Your task to perform on an android device: create a new album in the google photos Image 0: 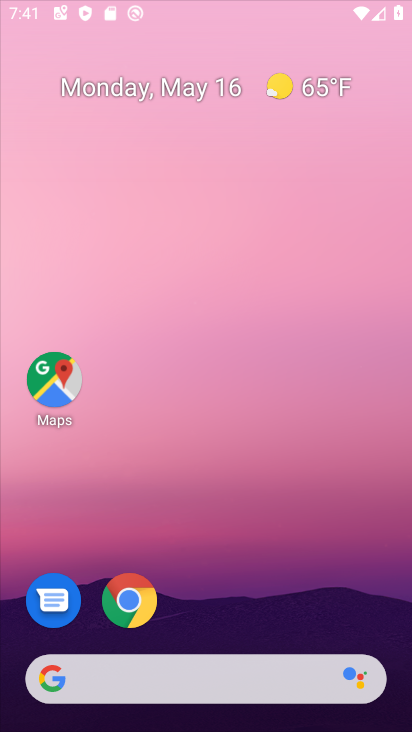
Step 0: click (203, 0)
Your task to perform on an android device: create a new album in the google photos Image 1: 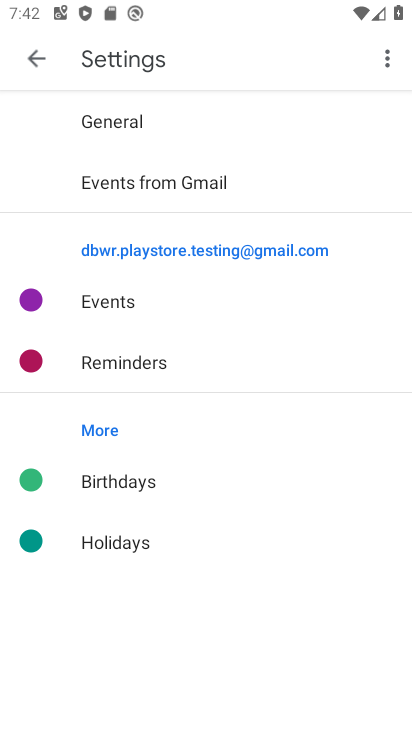
Step 1: drag from (223, 546) to (359, 143)
Your task to perform on an android device: create a new album in the google photos Image 2: 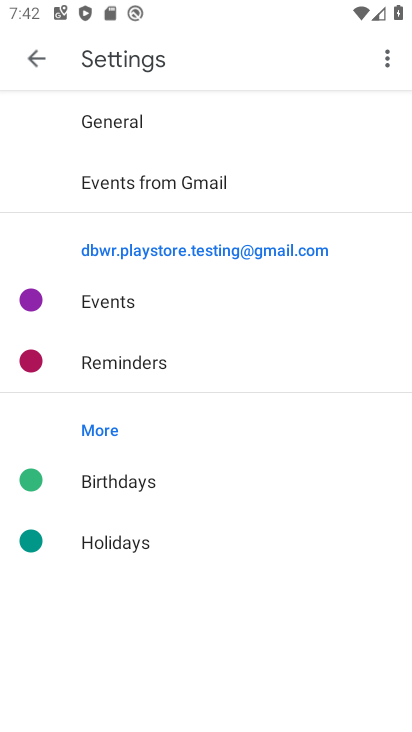
Step 2: press home button
Your task to perform on an android device: create a new album in the google photos Image 3: 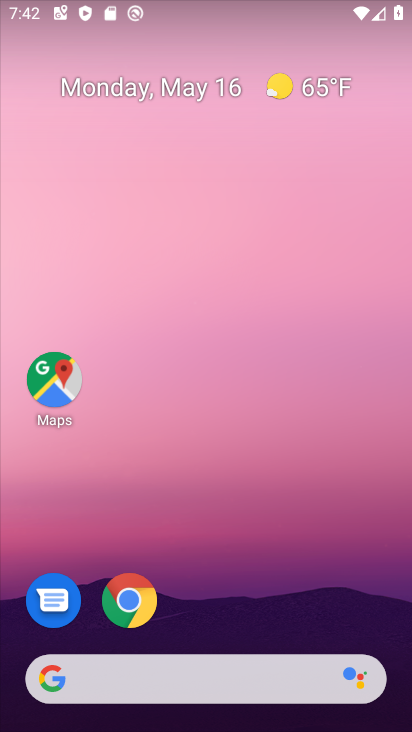
Step 3: drag from (182, 637) to (247, 56)
Your task to perform on an android device: create a new album in the google photos Image 4: 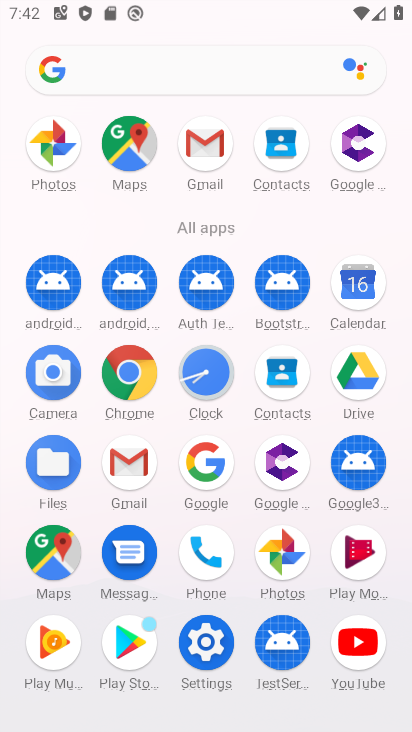
Step 4: click (274, 550)
Your task to perform on an android device: create a new album in the google photos Image 5: 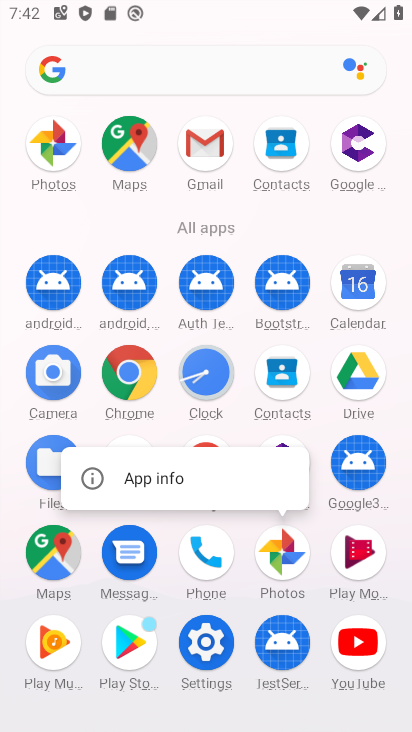
Step 5: click (184, 485)
Your task to perform on an android device: create a new album in the google photos Image 6: 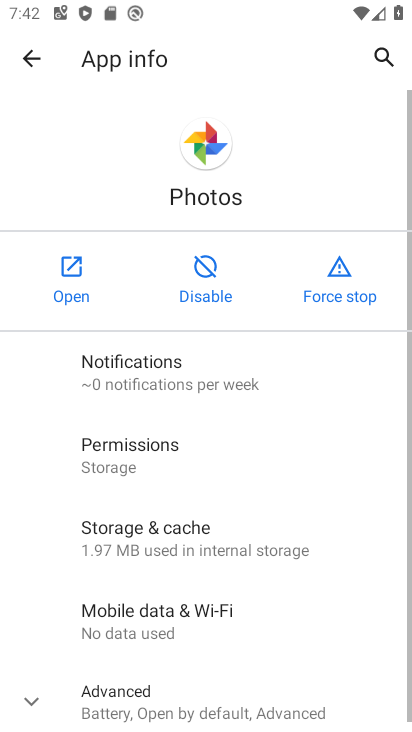
Step 6: click (53, 273)
Your task to perform on an android device: create a new album in the google photos Image 7: 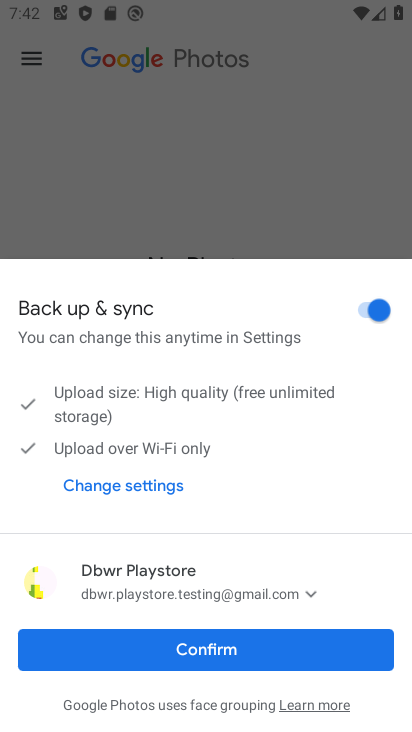
Step 7: click (211, 652)
Your task to perform on an android device: create a new album in the google photos Image 8: 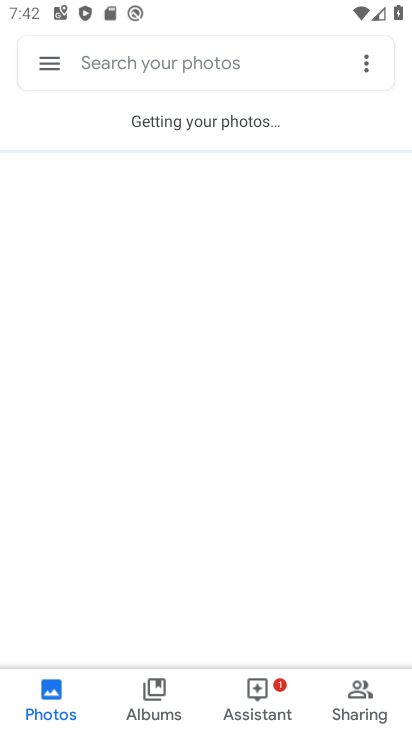
Step 8: click (156, 693)
Your task to perform on an android device: create a new album in the google photos Image 9: 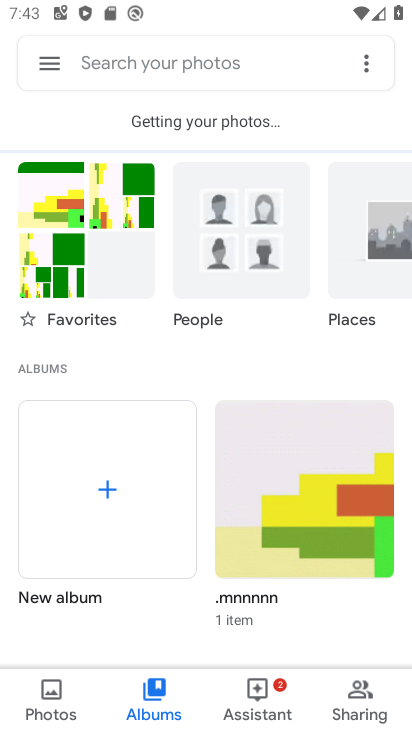
Step 9: click (95, 494)
Your task to perform on an android device: create a new album in the google photos Image 10: 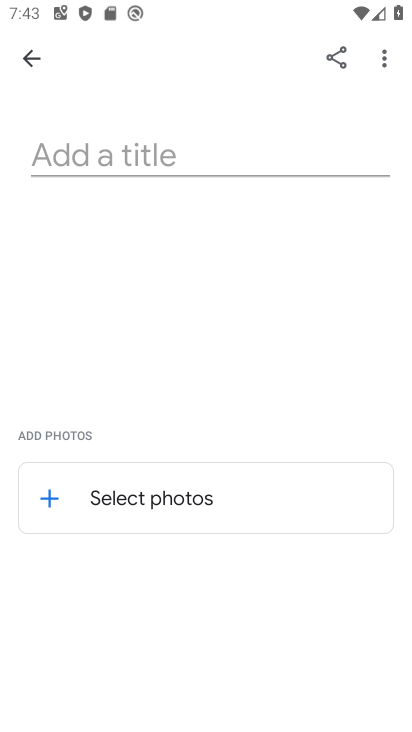
Step 10: click (167, 174)
Your task to perform on an android device: create a new album in the google photos Image 11: 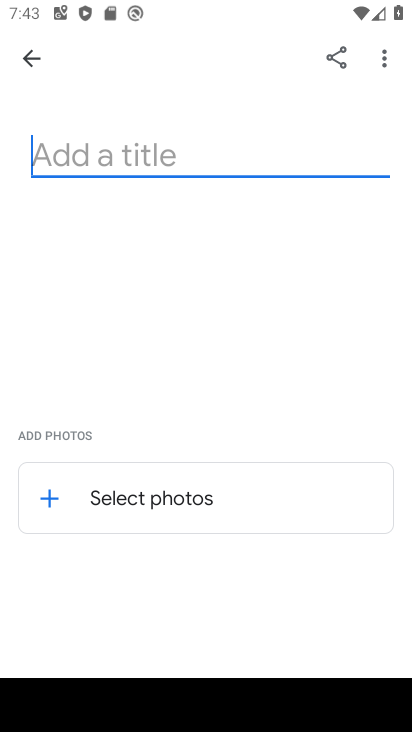
Step 11: type "ujht"
Your task to perform on an android device: create a new album in the google photos Image 12: 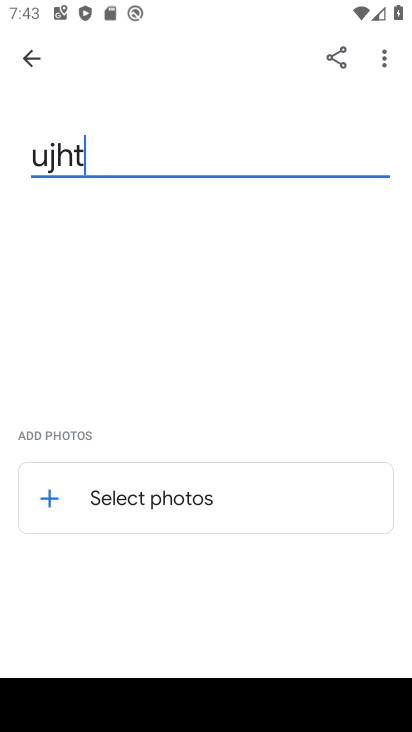
Step 12: click (56, 492)
Your task to perform on an android device: create a new album in the google photos Image 13: 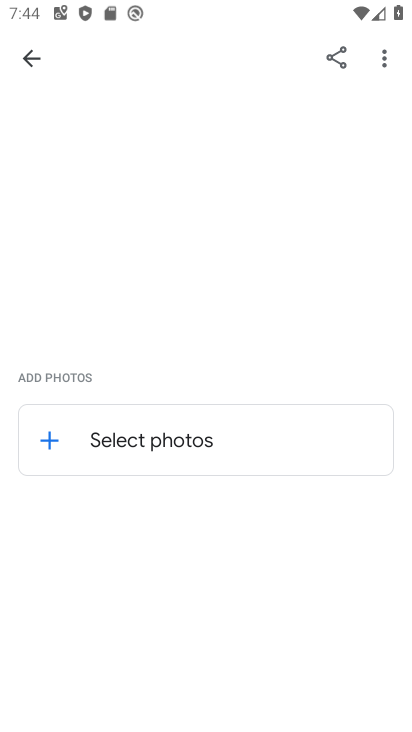
Step 13: click (45, 443)
Your task to perform on an android device: create a new album in the google photos Image 14: 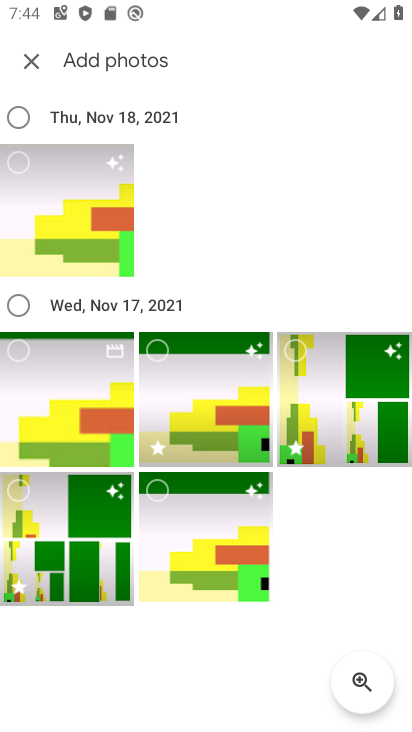
Step 14: click (60, 415)
Your task to perform on an android device: create a new album in the google photos Image 15: 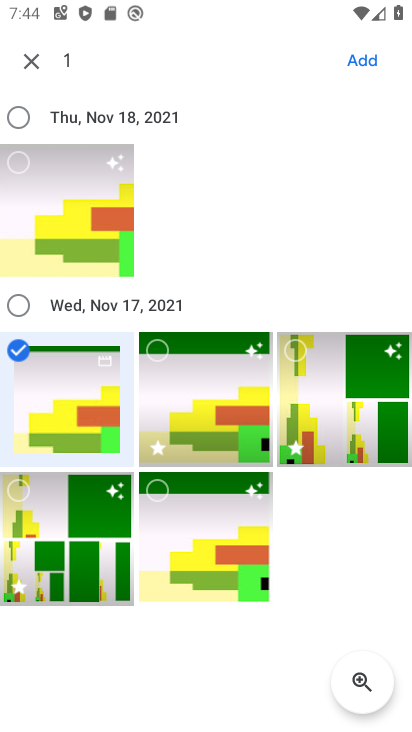
Step 15: click (183, 412)
Your task to perform on an android device: create a new album in the google photos Image 16: 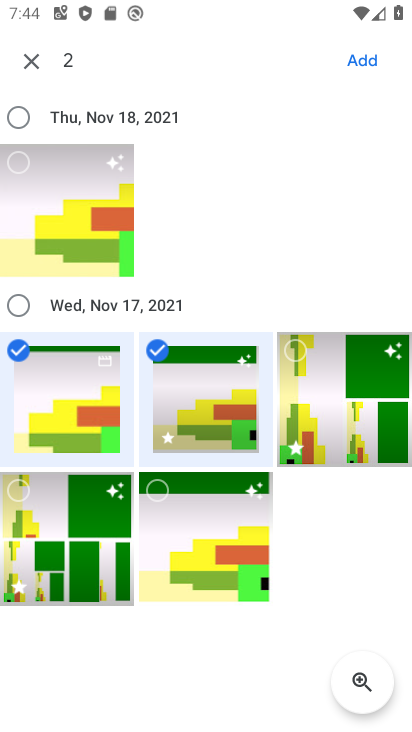
Step 16: click (364, 60)
Your task to perform on an android device: create a new album in the google photos Image 17: 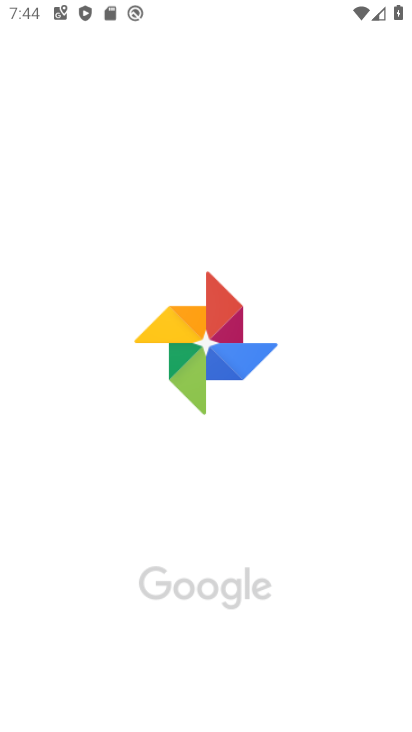
Step 17: click (142, 252)
Your task to perform on an android device: create a new album in the google photos Image 18: 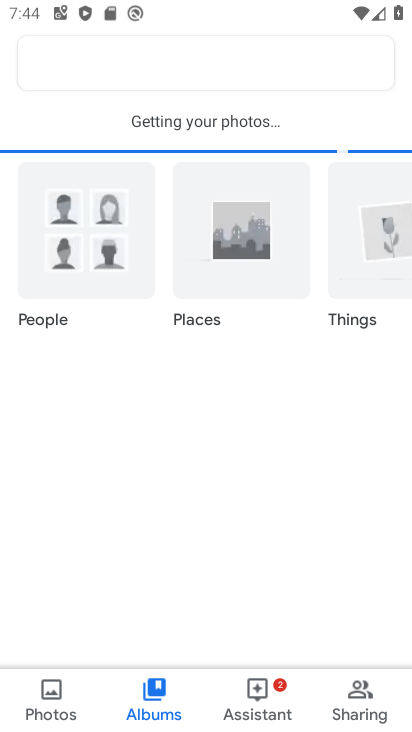
Step 18: task complete